Your task to perform on an android device: see creations saved in the google photos Image 0: 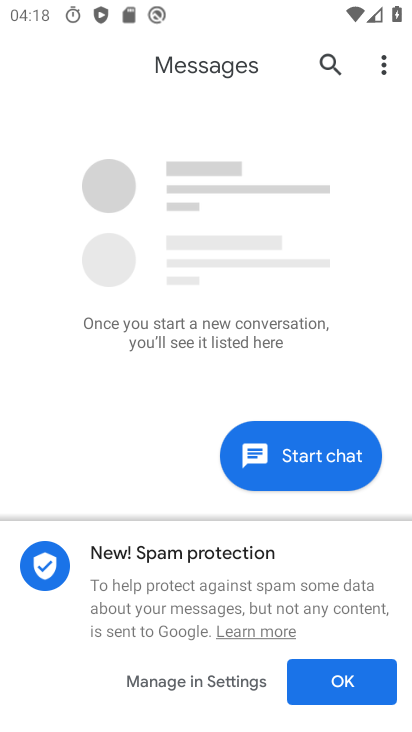
Step 0: press home button
Your task to perform on an android device: see creations saved in the google photos Image 1: 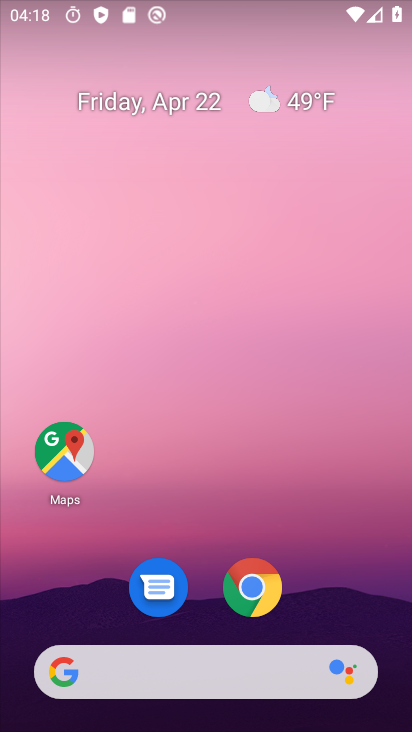
Step 1: drag from (365, 568) to (393, 9)
Your task to perform on an android device: see creations saved in the google photos Image 2: 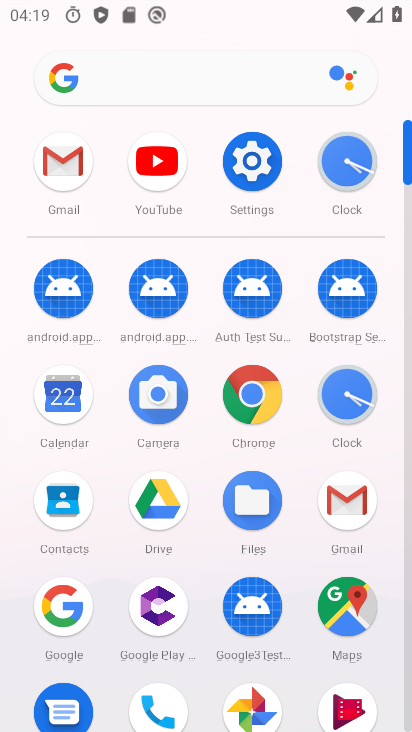
Step 2: click (254, 698)
Your task to perform on an android device: see creations saved in the google photos Image 3: 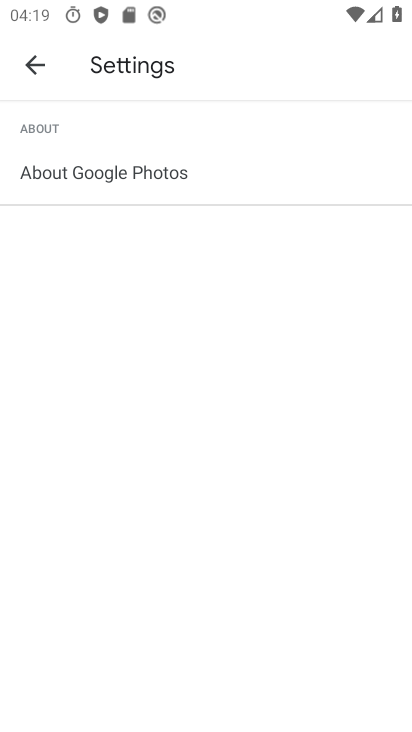
Step 3: click (40, 68)
Your task to perform on an android device: see creations saved in the google photos Image 4: 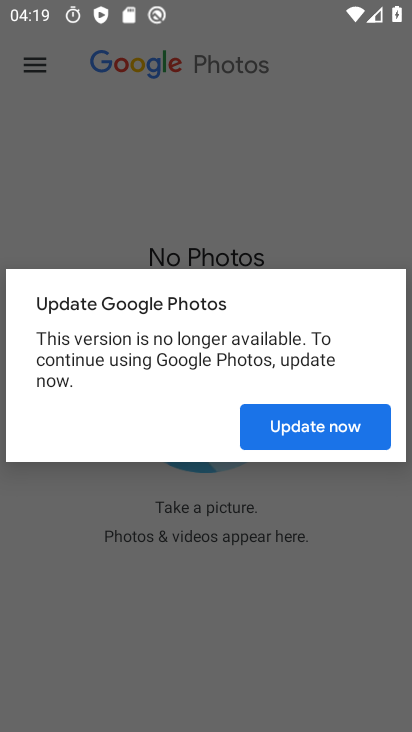
Step 4: click (300, 429)
Your task to perform on an android device: see creations saved in the google photos Image 5: 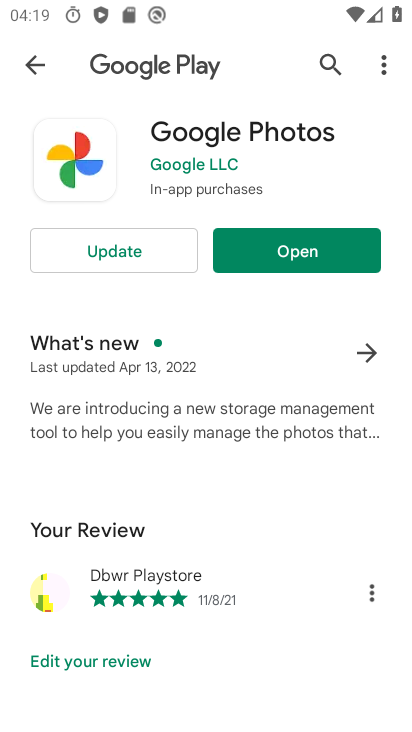
Step 5: click (254, 260)
Your task to perform on an android device: see creations saved in the google photos Image 6: 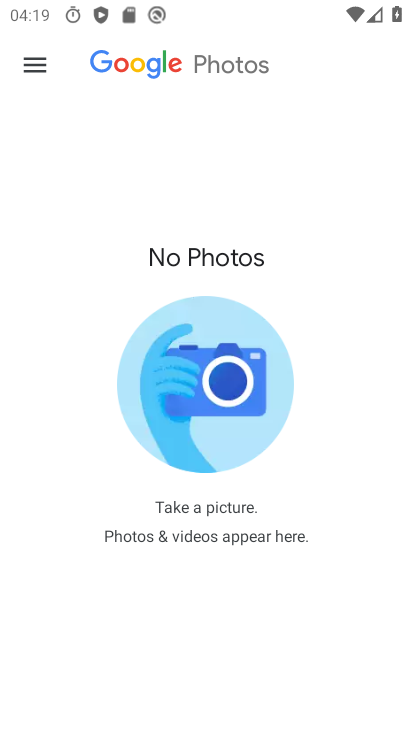
Step 6: click (185, 67)
Your task to perform on an android device: see creations saved in the google photos Image 7: 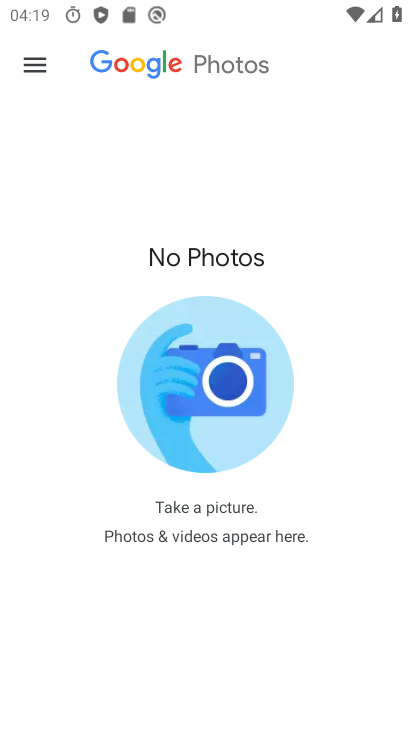
Step 7: click (35, 70)
Your task to perform on an android device: see creations saved in the google photos Image 8: 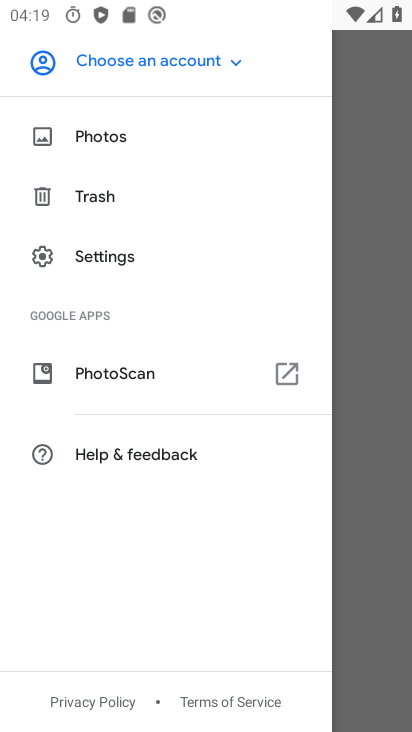
Step 8: click (361, 167)
Your task to perform on an android device: see creations saved in the google photos Image 9: 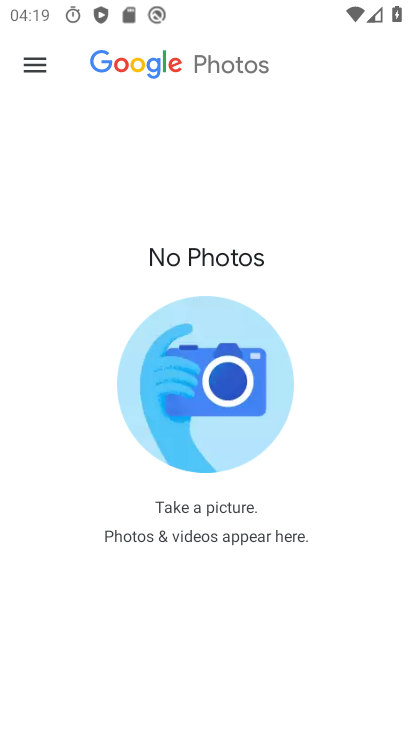
Step 9: task complete